Your task to perform on an android device: uninstall "Messages" Image 0: 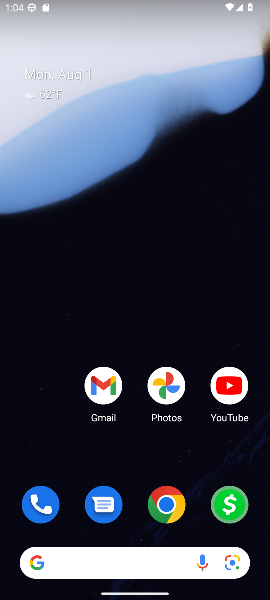
Step 0: drag from (166, 569) to (152, 93)
Your task to perform on an android device: uninstall "Messages" Image 1: 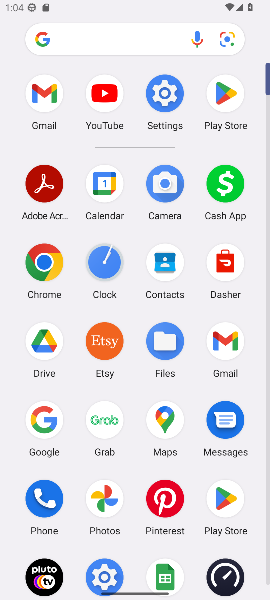
Step 1: click (241, 102)
Your task to perform on an android device: uninstall "Messages" Image 2: 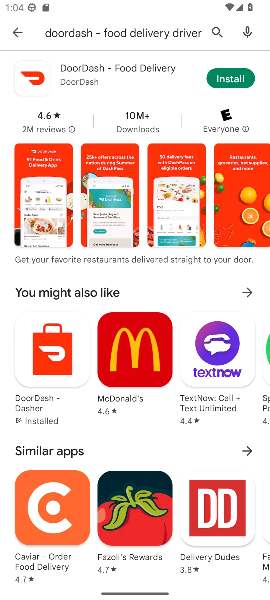
Step 2: click (213, 31)
Your task to perform on an android device: uninstall "Messages" Image 3: 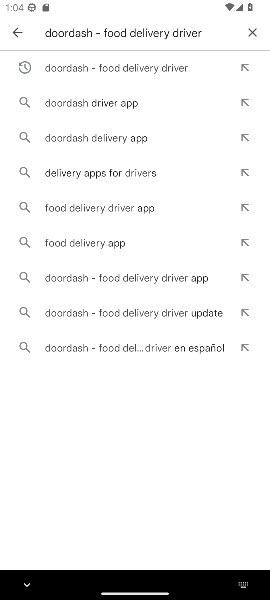
Step 3: click (254, 29)
Your task to perform on an android device: uninstall "Messages" Image 4: 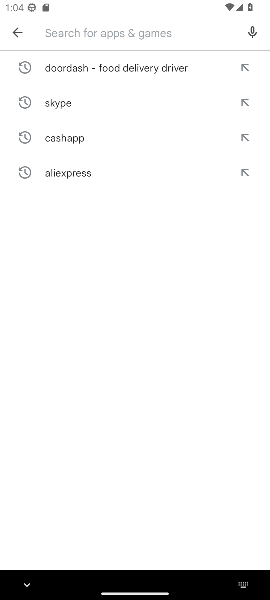
Step 4: type ""
Your task to perform on an android device: uninstall "Messages" Image 5: 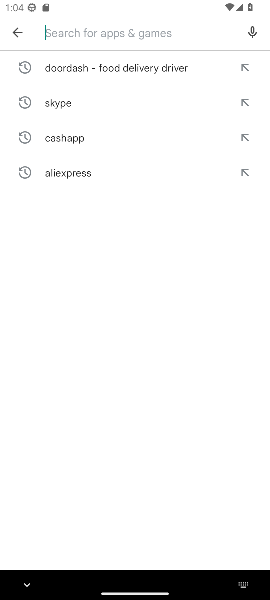
Step 5: type "messeges"
Your task to perform on an android device: uninstall "Messages" Image 6: 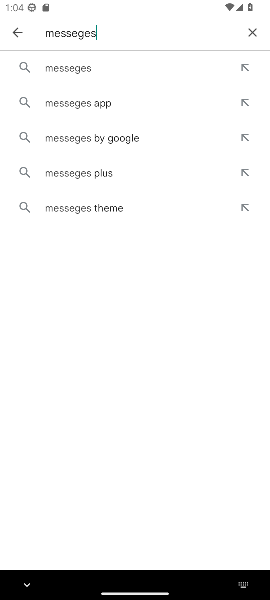
Step 6: click (50, 71)
Your task to perform on an android device: uninstall "Messages" Image 7: 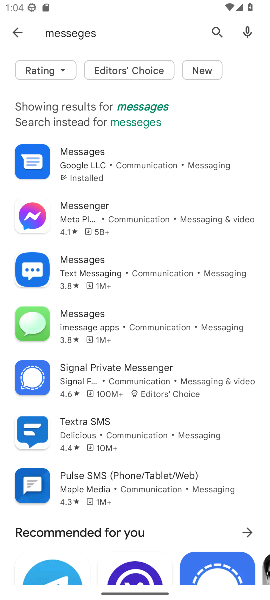
Step 7: click (157, 164)
Your task to perform on an android device: uninstall "Messages" Image 8: 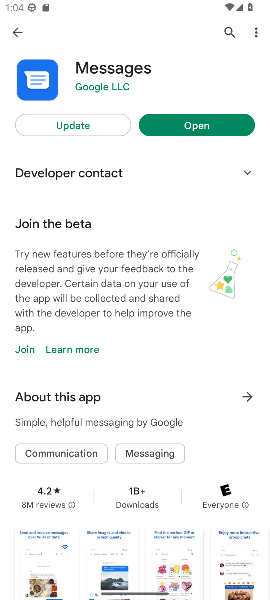
Step 8: click (113, 155)
Your task to perform on an android device: uninstall "Messages" Image 9: 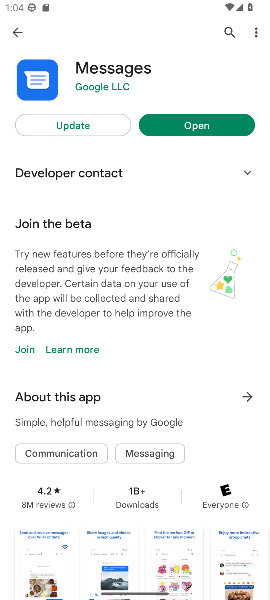
Step 9: task complete